Your task to perform on an android device: turn off airplane mode Image 0: 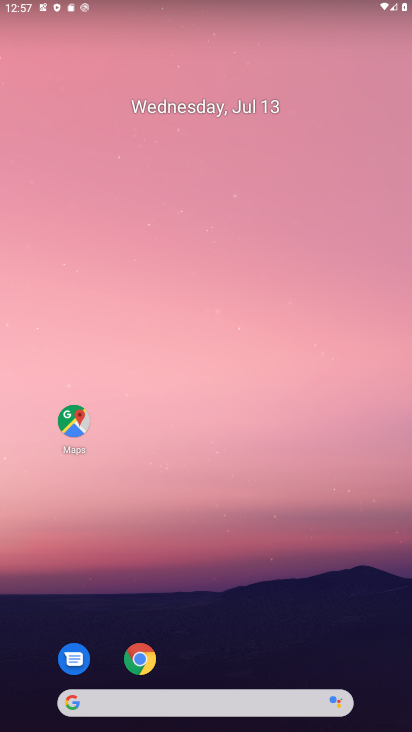
Step 0: drag from (188, 620) to (240, 232)
Your task to perform on an android device: turn off airplane mode Image 1: 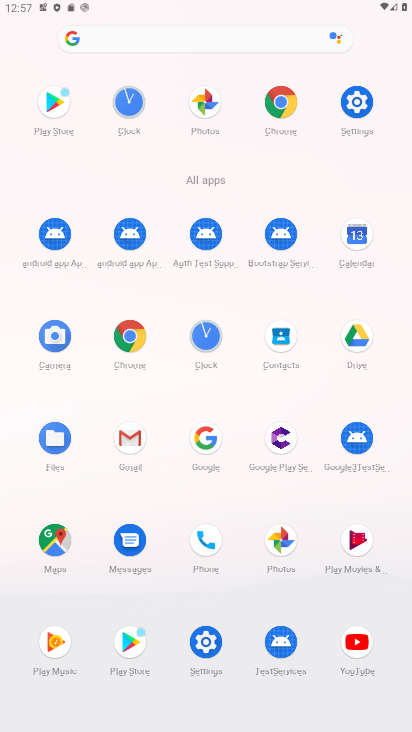
Step 1: click (203, 629)
Your task to perform on an android device: turn off airplane mode Image 2: 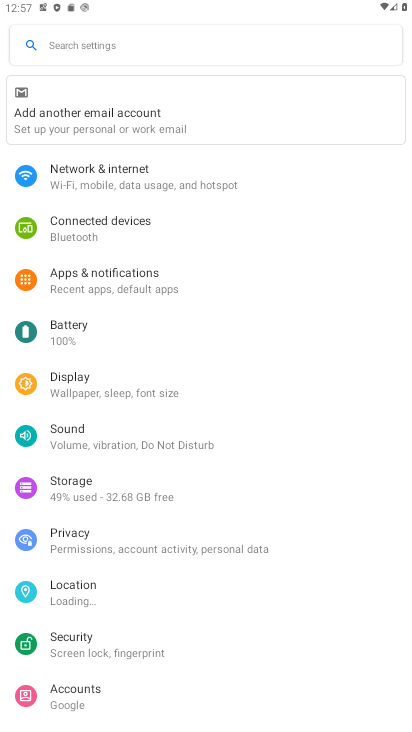
Step 2: click (123, 180)
Your task to perform on an android device: turn off airplane mode Image 3: 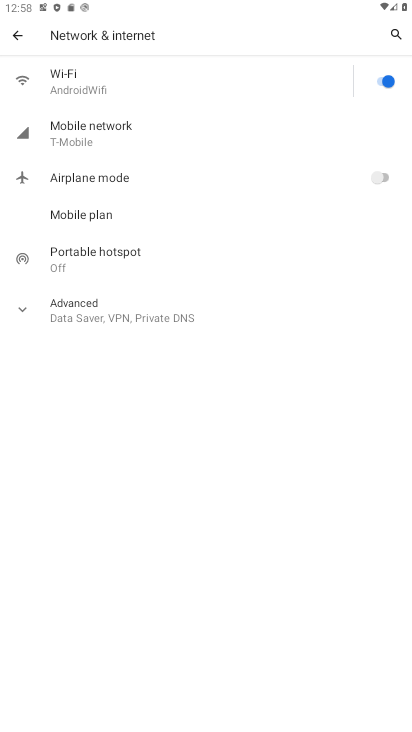
Step 3: task complete